Your task to perform on an android device: Show me the alarms in the clock app Image 0: 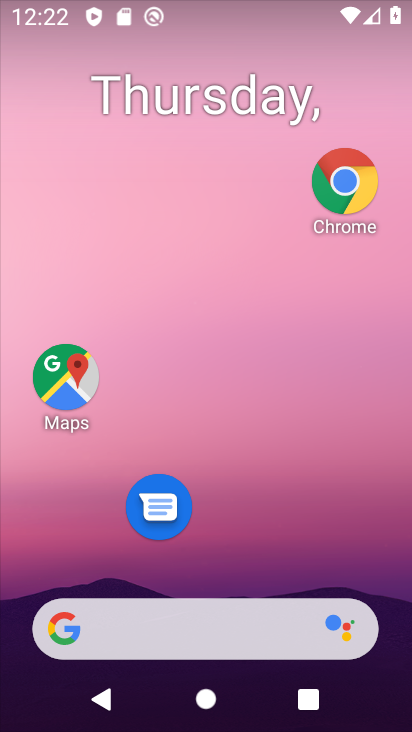
Step 0: drag from (179, 610) to (239, 212)
Your task to perform on an android device: Show me the alarms in the clock app Image 1: 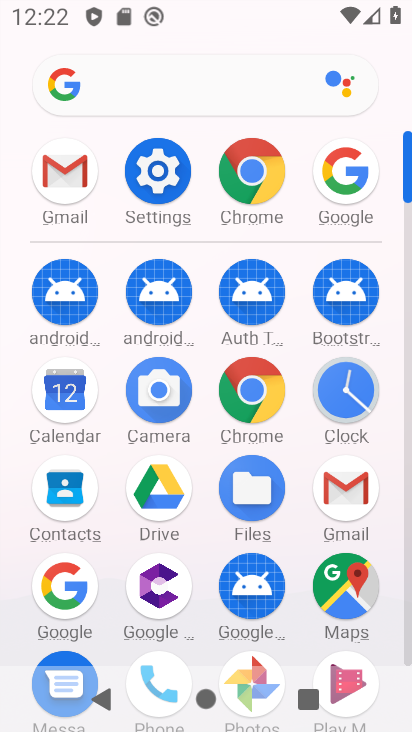
Step 1: click (371, 397)
Your task to perform on an android device: Show me the alarms in the clock app Image 2: 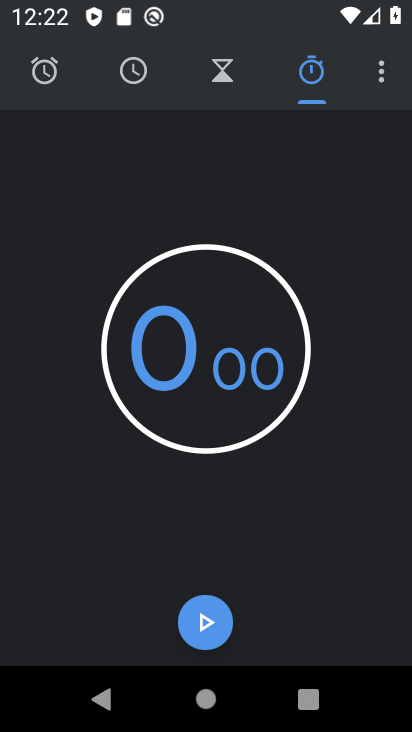
Step 2: click (68, 59)
Your task to perform on an android device: Show me the alarms in the clock app Image 3: 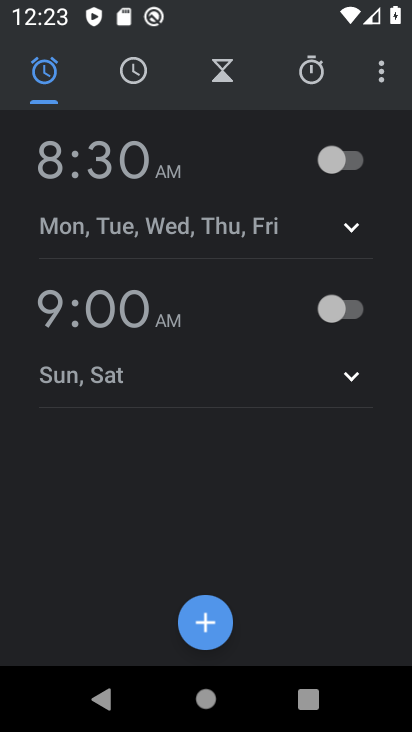
Step 3: task complete